Your task to perform on an android device: check out phone information Image 0: 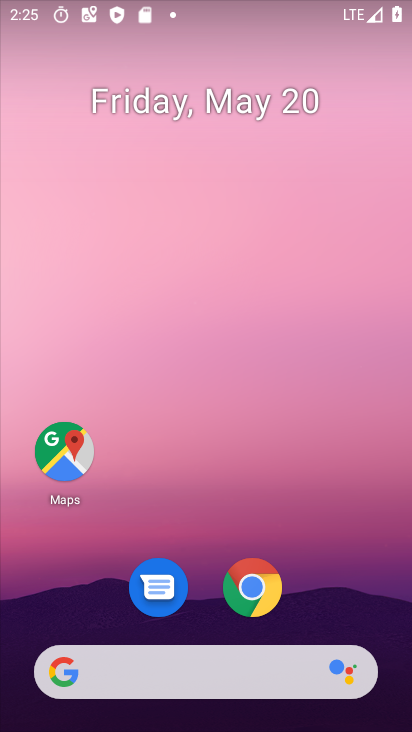
Step 0: drag from (325, 596) to (308, 125)
Your task to perform on an android device: check out phone information Image 1: 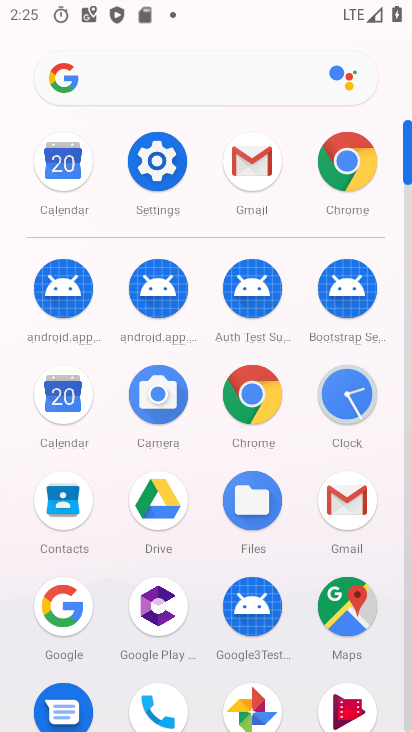
Step 1: click (174, 695)
Your task to perform on an android device: check out phone information Image 2: 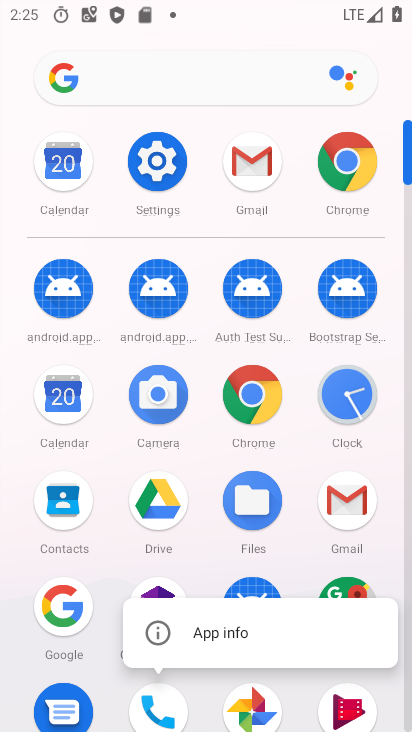
Step 2: click (222, 633)
Your task to perform on an android device: check out phone information Image 3: 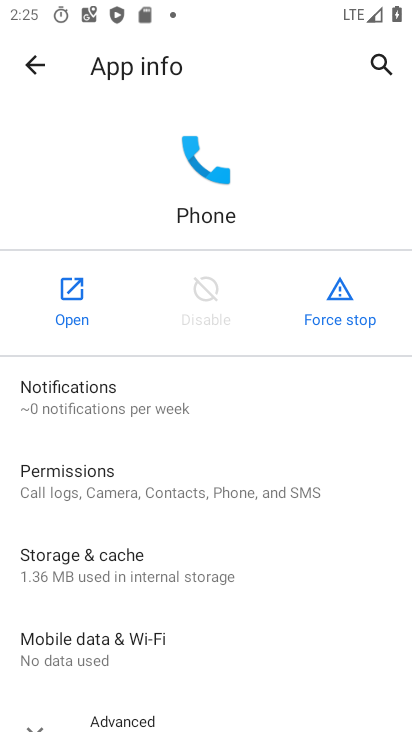
Step 3: task complete